Your task to perform on an android device: Open calendar and show me the third week of next month Image 0: 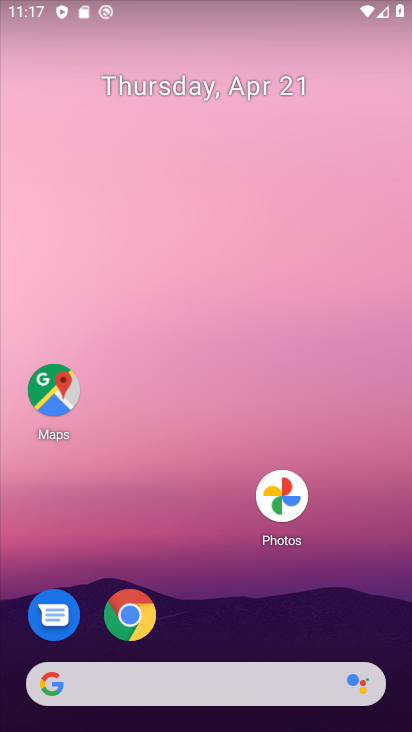
Step 0: drag from (232, 232) to (202, 36)
Your task to perform on an android device: Open calendar and show me the third week of next month Image 1: 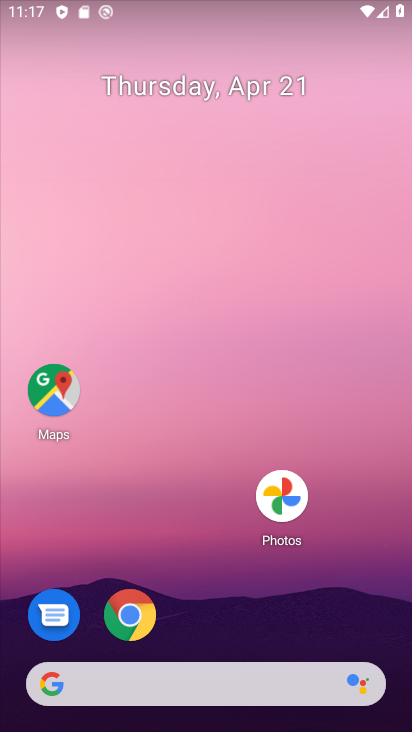
Step 1: drag from (283, 701) to (160, 160)
Your task to perform on an android device: Open calendar and show me the third week of next month Image 2: 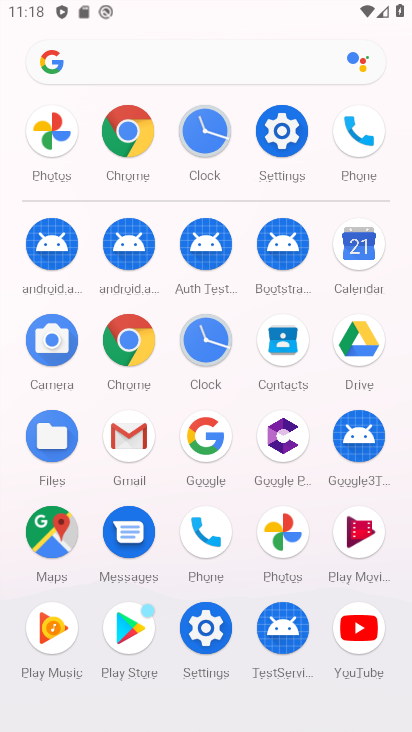
Step 2: click (356, 242)
Your task to perform on an android device: Open calendar and show me the third week of next month Image 3: 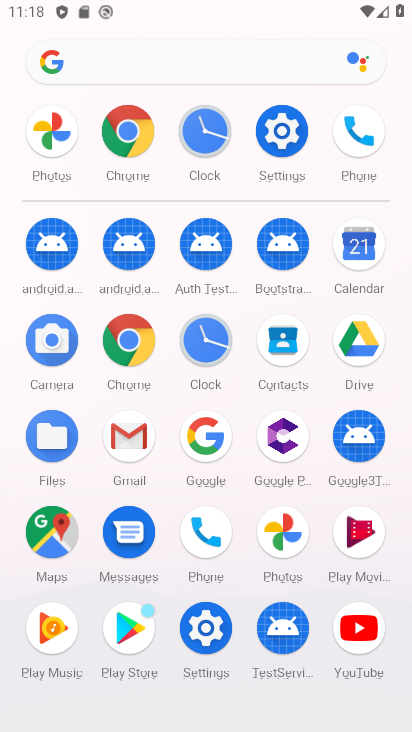
Step 3: click (361, 239)
Your task to perform on an android device: Open calendar and show me the third week of next month Image 4: 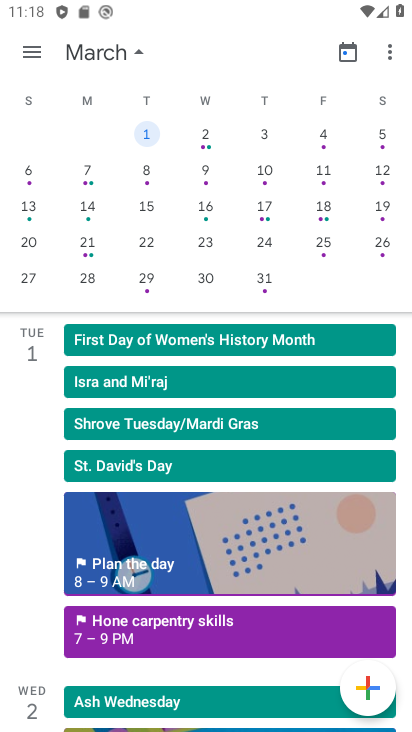
Step 4: click (371, 240)
Your task to perform on an android device: Open calendar and show me the third week of next month Image 5: 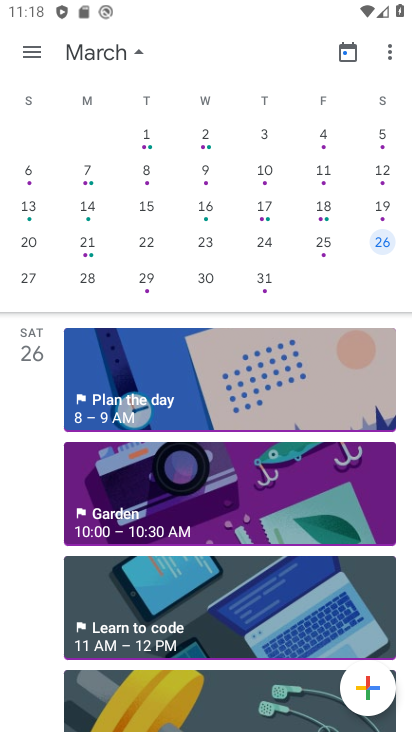
Step 5: click (136, 49)
Your task to perform on an android device: Open calendar and show me the third week of next month Image 6: 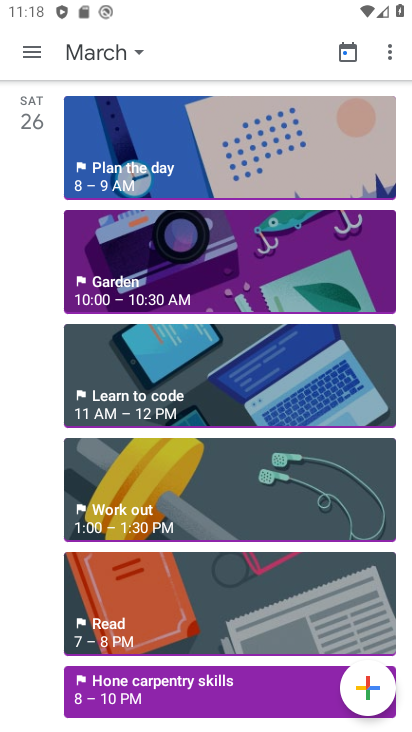
Step 6: click (138, 45)
Your task to perform on an android device: Open calendar and show me the third week of next month Image 7: 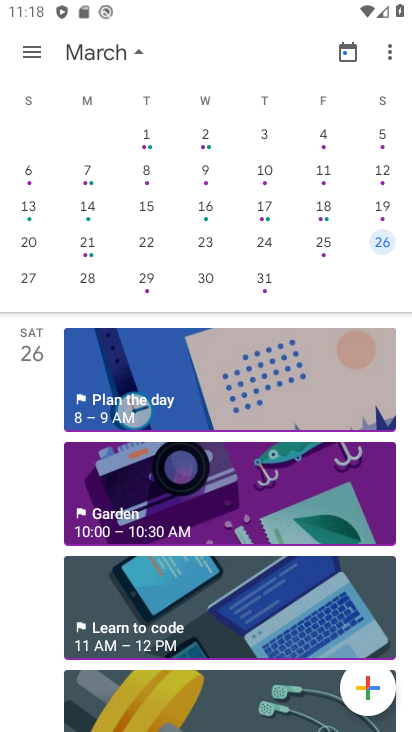
Step 7: click (136, 53)
Your task to perform on an android device: Open calendar and show me the third week of next month Image 8: 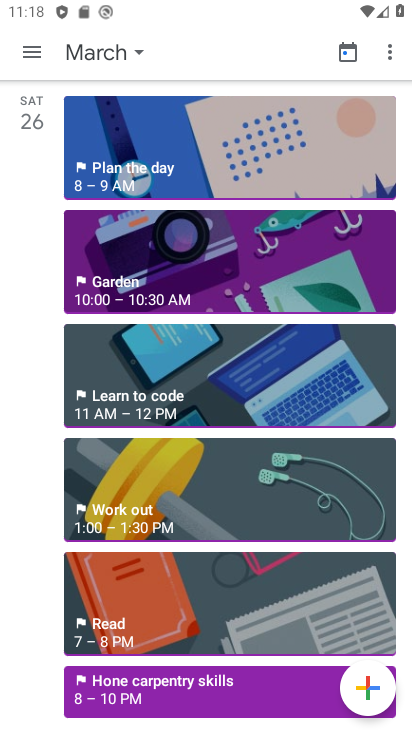
Step 8: drag from (29, 260) to (5, 232)
Your task to perform on an android device: Open calendar and show me the third week of next month Image 9: 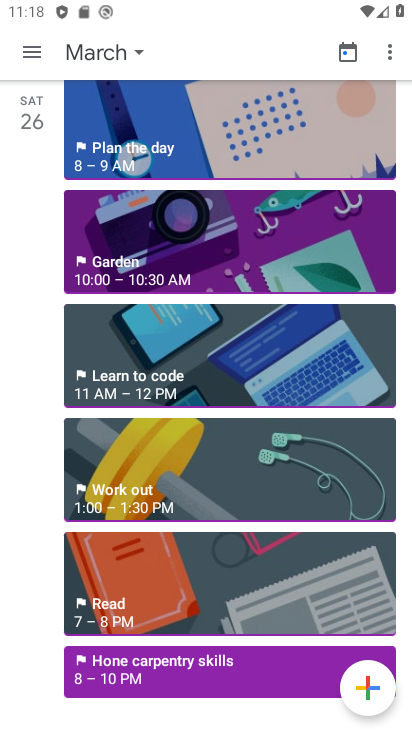
Step 9: click (135, 53)
Your task to perform on an android device: Open calendar and show me the third week of next month Image 10: 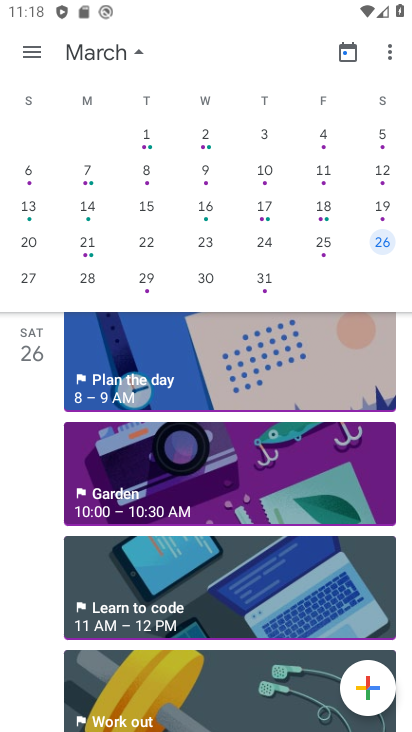
Step 10: click (234, 478)
Your task to perform on an android device: Open calendar and show me the third week of next month Image 11: 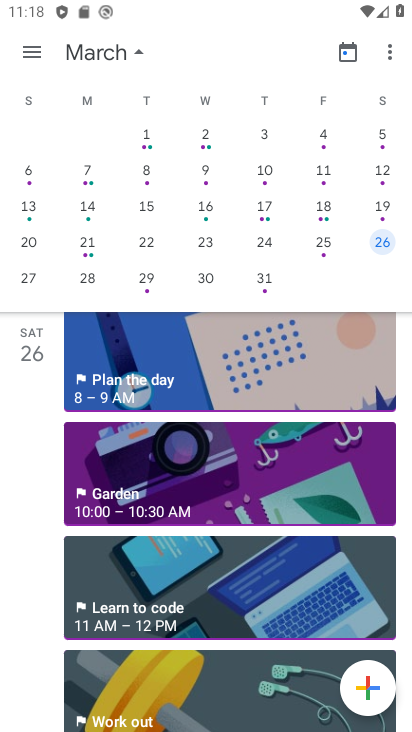
Step 11: drag from (218, 179) to (44, 175)
Your task to perform on an android device: Open calendar and show me the third week of next month Image 12: 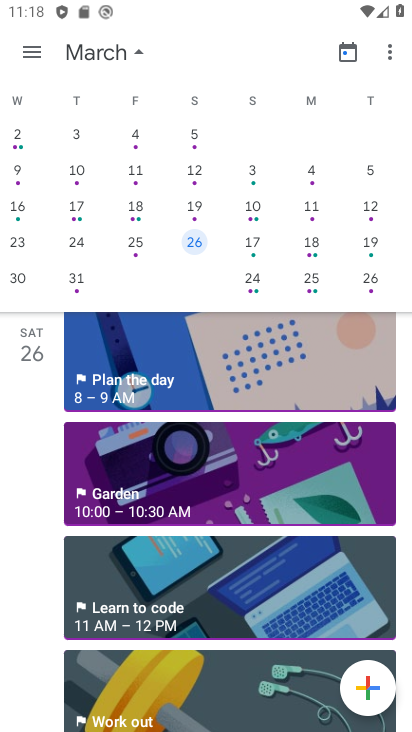
Step 12: drag from (46, 195) to (24, 145)
Your task to perform on an android device: Open calendar and show me the third week of next month Image 13: 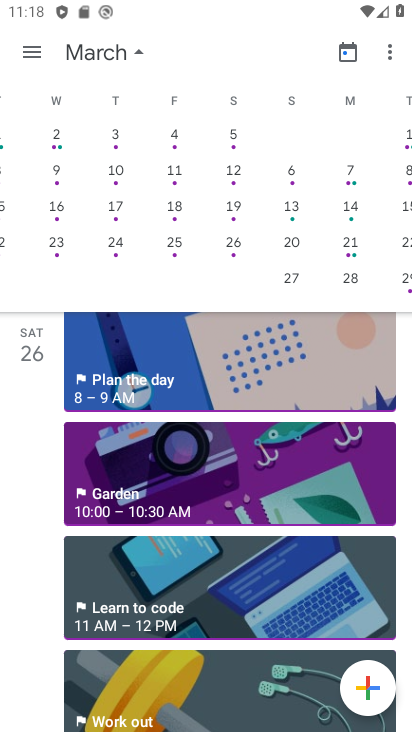
Step 13: drag from (12, 176) to (46, 138)
Your task to perform on an android device: Open calendar and show me the third week of next month Image 14: 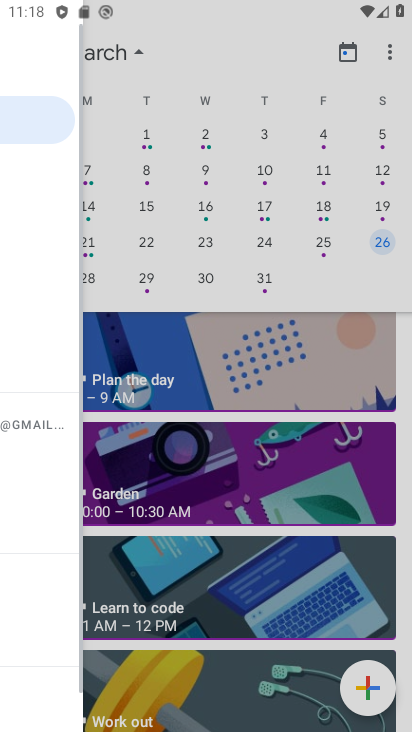
Step 14: drag from (221, 147) to (0, 143)
Your task to perform on an android device: Open calendar and show me the third week of next month Image 15: 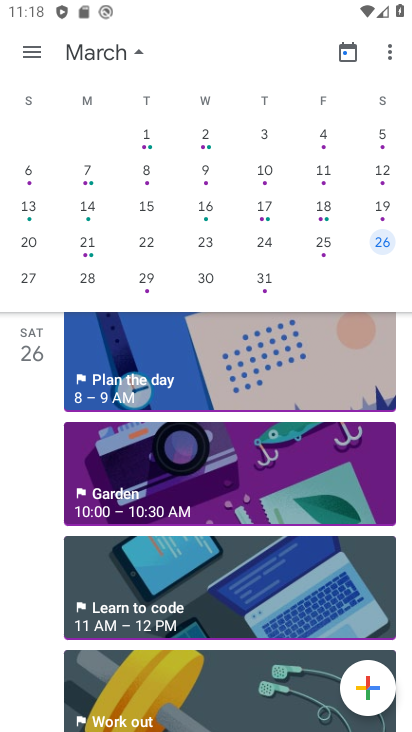
Step 15: drag from (283, 222) to (5, 179)
Your task to perform on an android device: Open calendar and show me the third week of next month Image 16: 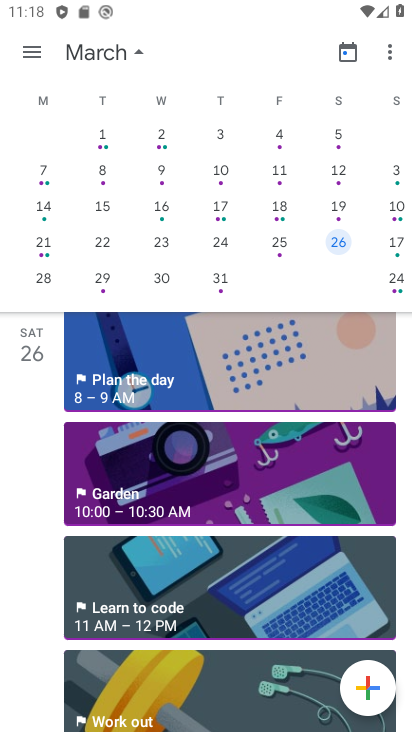
Step 16: drag from (197, 199) to (92, 245)
Your task to perform on an android device: Open calendar and show me the third week of next month Image 17: 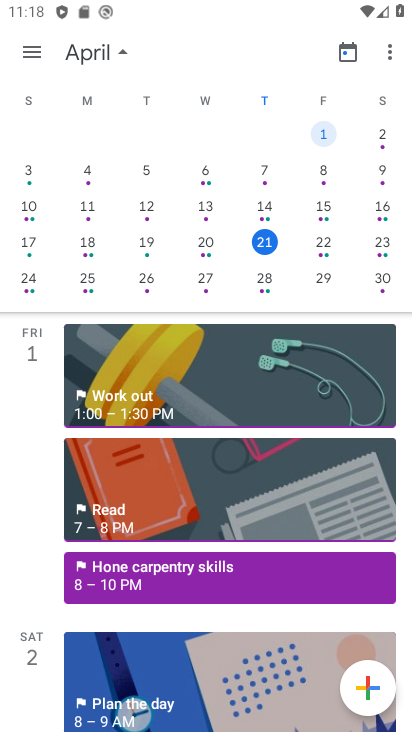
Step 17: drag from (334, 205) to (23, 138)
Your task to perform on an android device: Open calendar and show me the third week of next month Image 18: 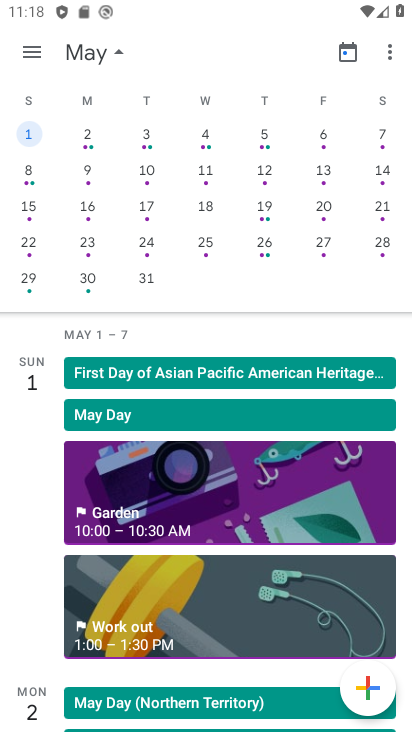
Step 18: click (88, 207)
Your task to perform on an android device: Open calendar and show me the third week of next month Image 19: 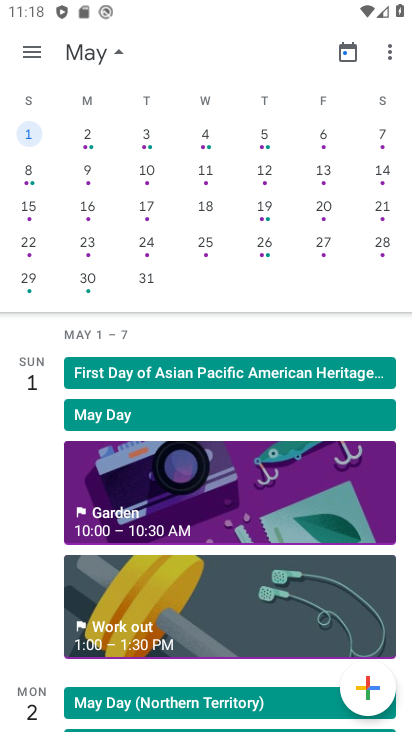
Step 19: click (88, 207)
Your task to perform on an android device: Open calendar and show me the third week of next month Image 20: 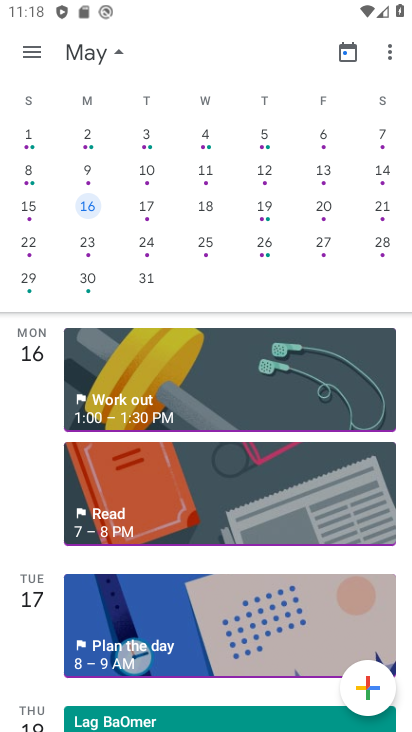
Step 20: click (88, 207)
Your task to perform on an android device: Open calendar and show me the third week of next month Image 21: 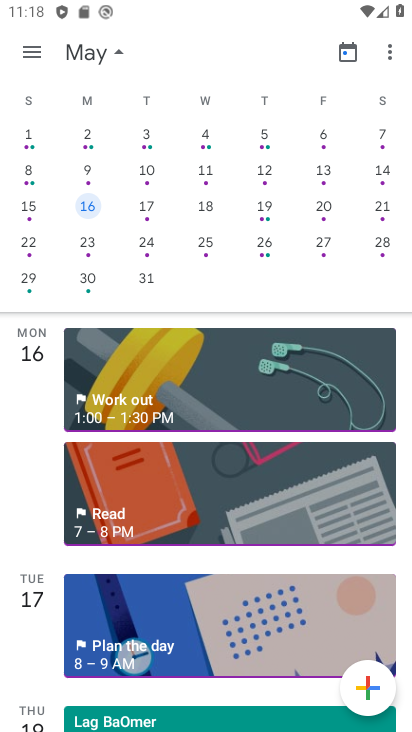
Step 21: click (87, 210)
Your task to perform on an android device: Open calendar and show me the third week of next month Image 22: 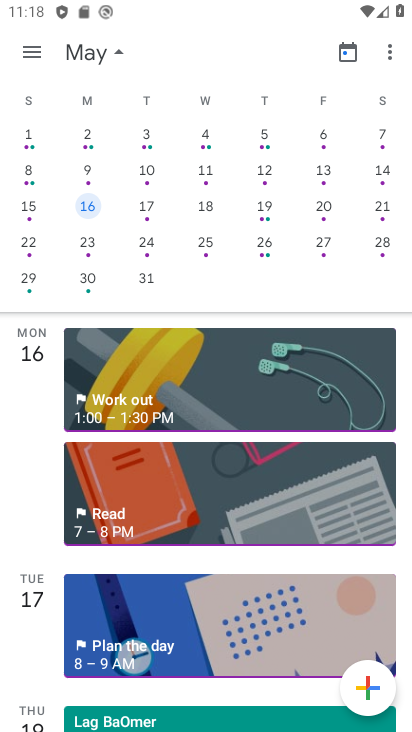
Step 22: task complete